Your task to perform on an android device: Open Google Chrome Image 0: 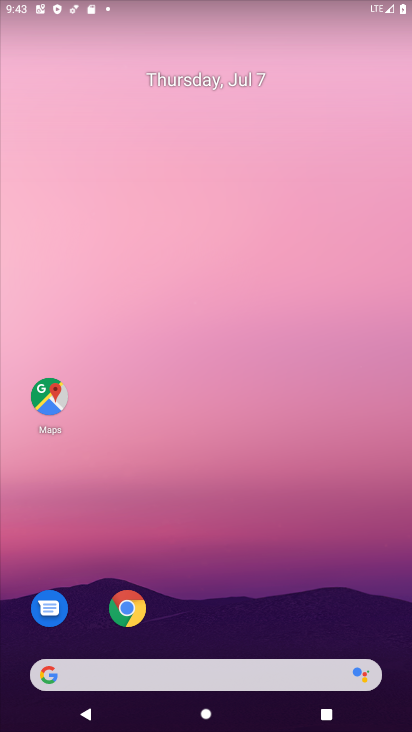
Step 0: click (130, 608)
Your task to perform on an android device: Open Google Chrome Image 1: 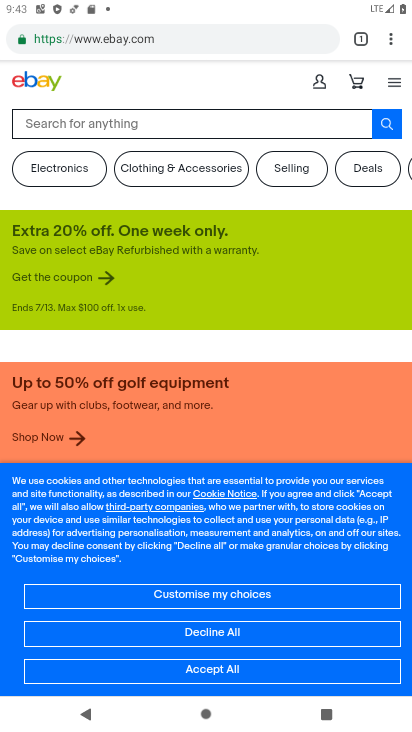
Step 1: task complete